Your task to perform on an android device: show emergency info Image 0: 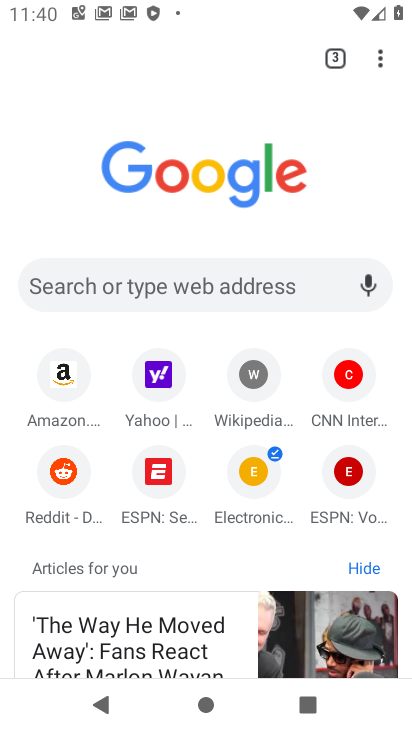
Step 0: press home button
Your task to perform on an android device: show emergency info Image 1: 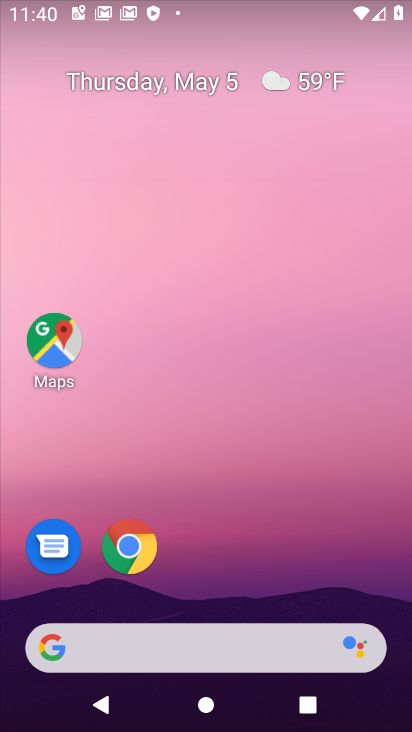
Step 1: drag from (274, 503) to (275, 82)
Your task to perform on an android device: show emergency info Image 2: 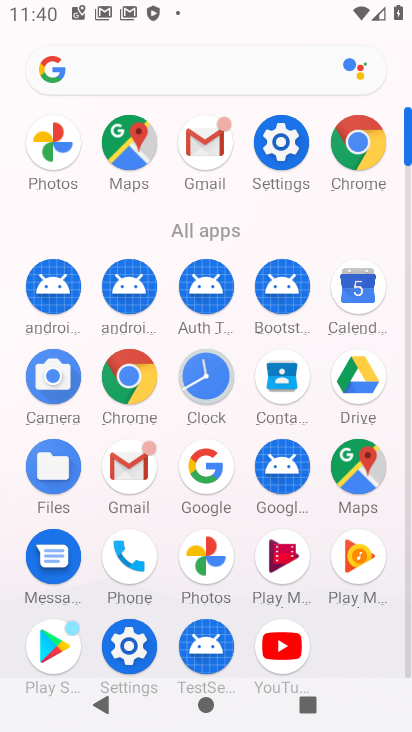
Step 2: click (276, 141)
Your task to perform on an android device: show emergency info Image 3: 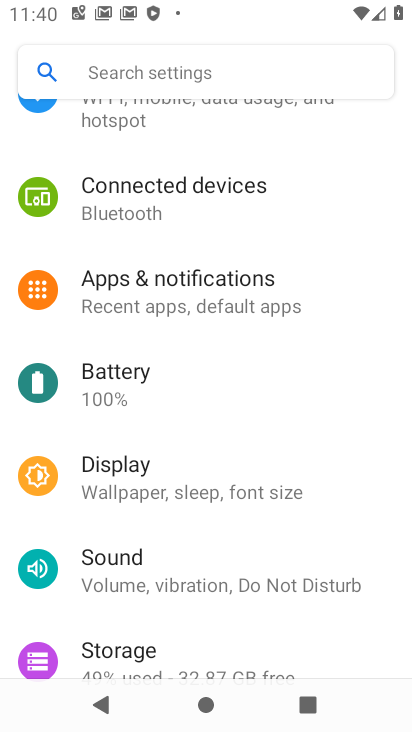
Step 3: drag from (240, 597) to (274, 121)
Your task to perform on an android device: show emergency info Image 4: 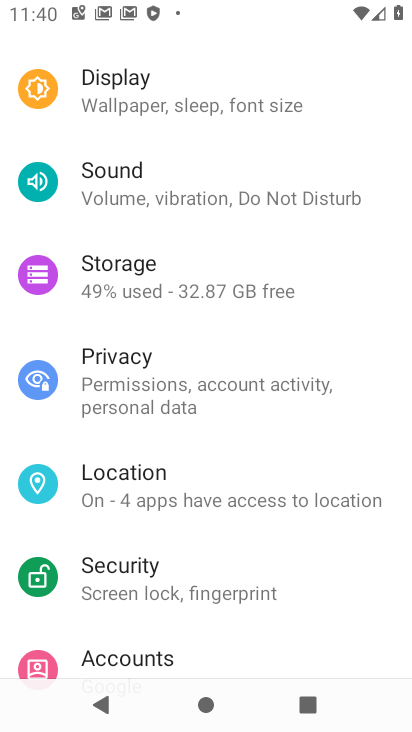
Step 4: drag from (265, 604) to (296, 92)
Your task to perform on an android device: show emergency info Image 5: 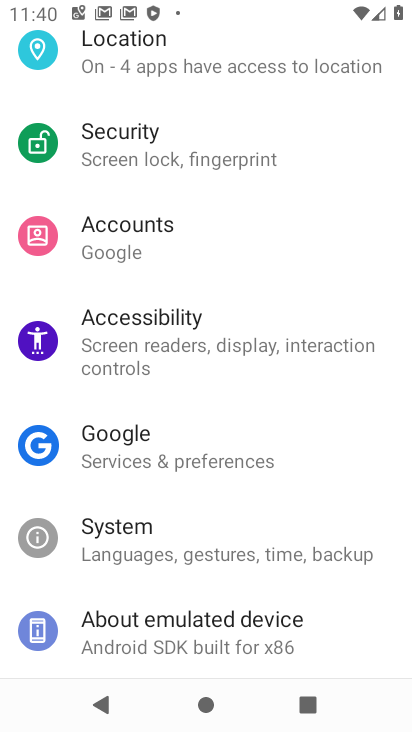
Step 5: click (219, 647)
Your task to perform on an android device: show emergency info Image 6: 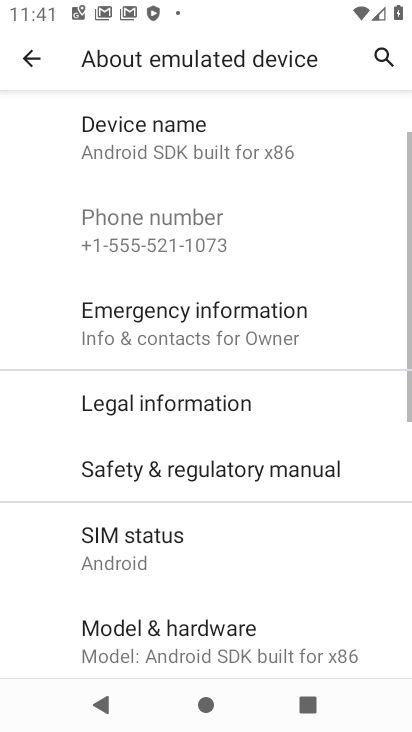
Step 6: click (230, 326)
Your task to perform on an android device: show emergency info Image 7: 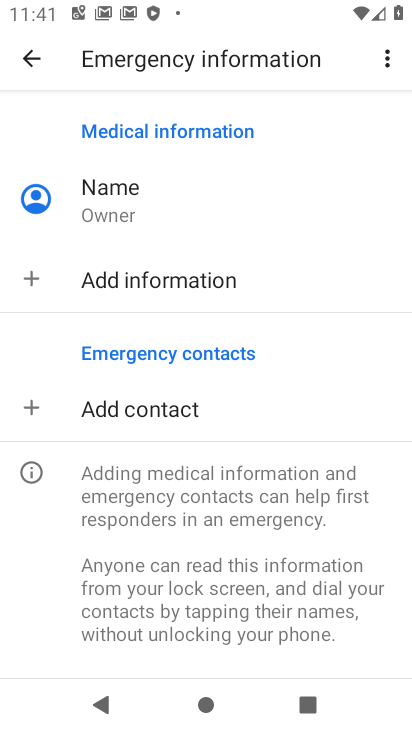
Step 7: task complete